Your task to perform on an android device: Open CNN.com Image 0: 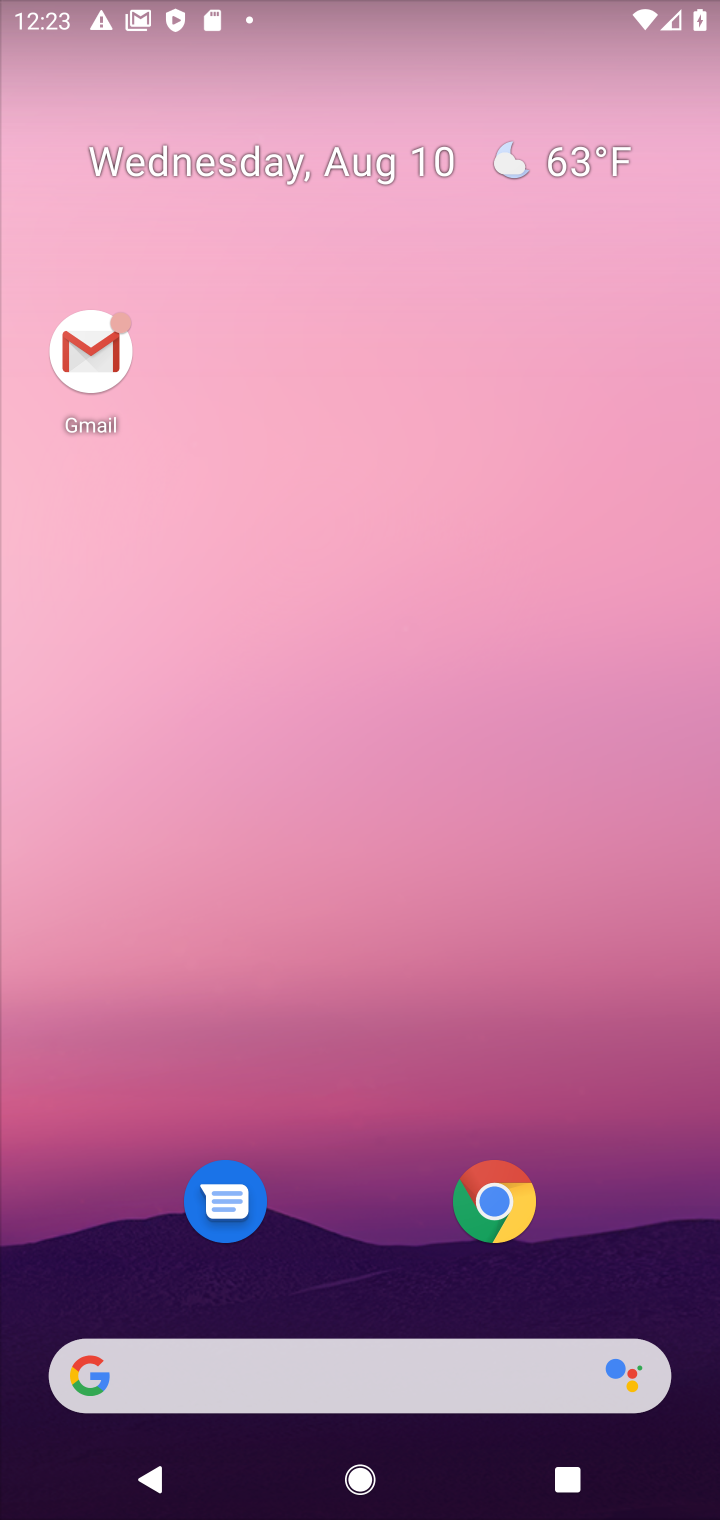
Step 0: click (505, 1202)
Your task to perform on an android device: Open CNN.com Image 1: 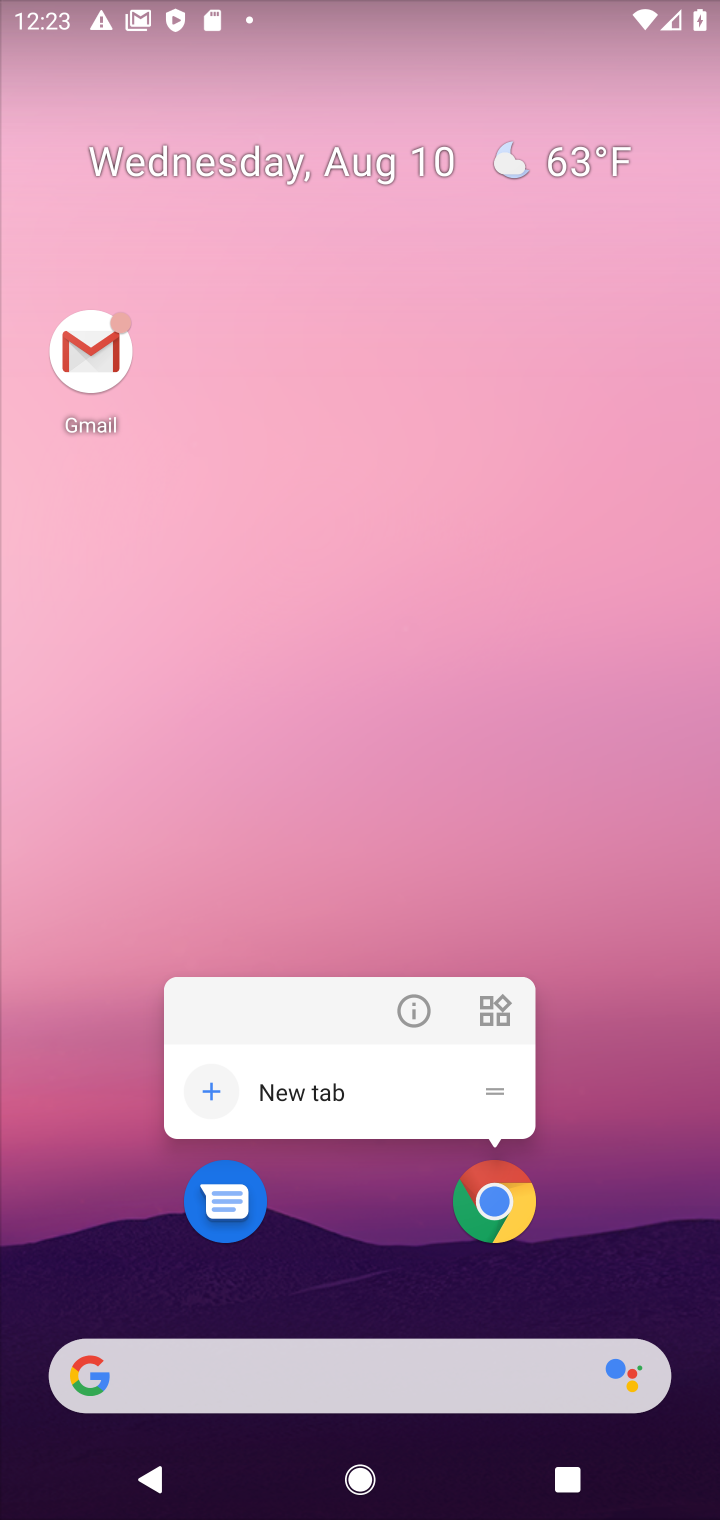
Step 1: click (507, 1202)
Your task to perform on an android device: Open CNN.com Image 2: 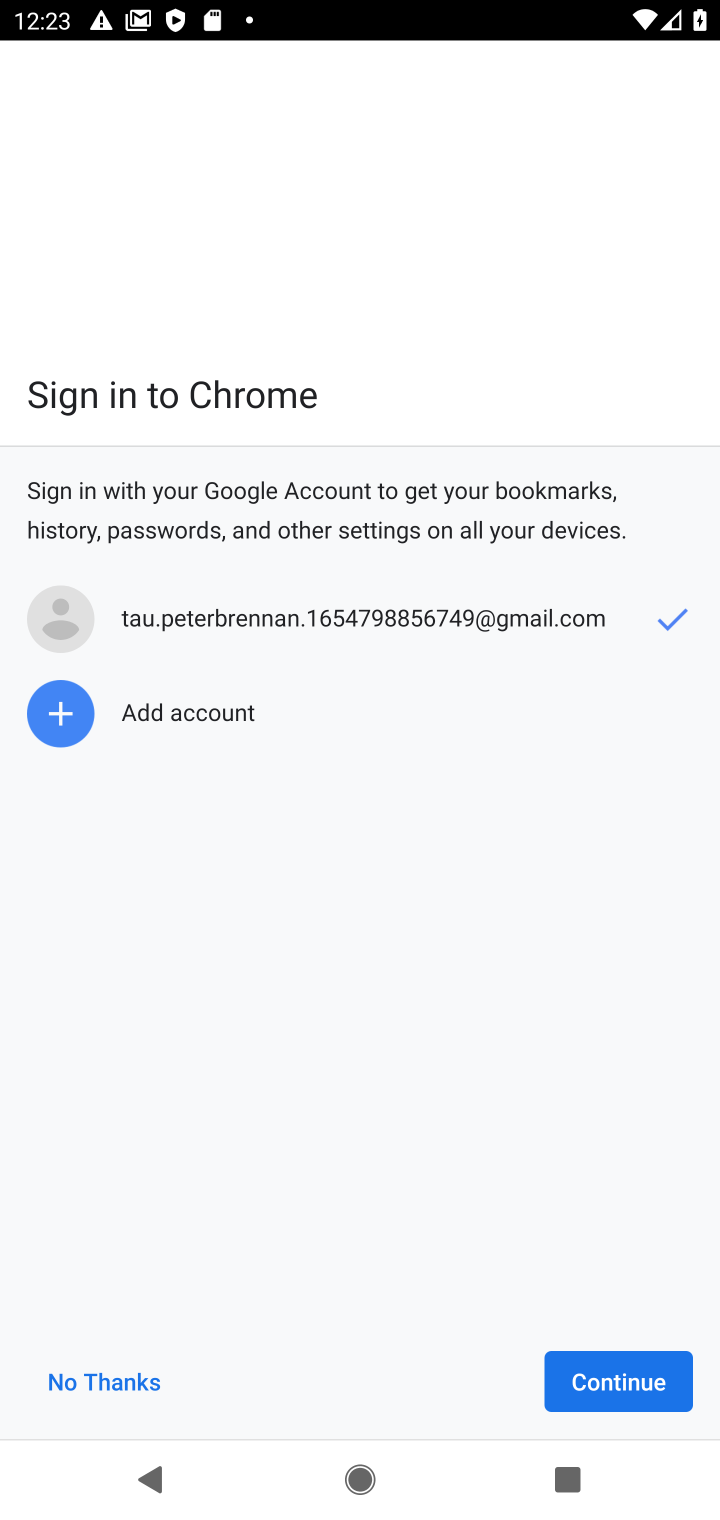
Step 2: click (583, 1360)
Your task to perform on an android device: Open CNN.com Image 3: 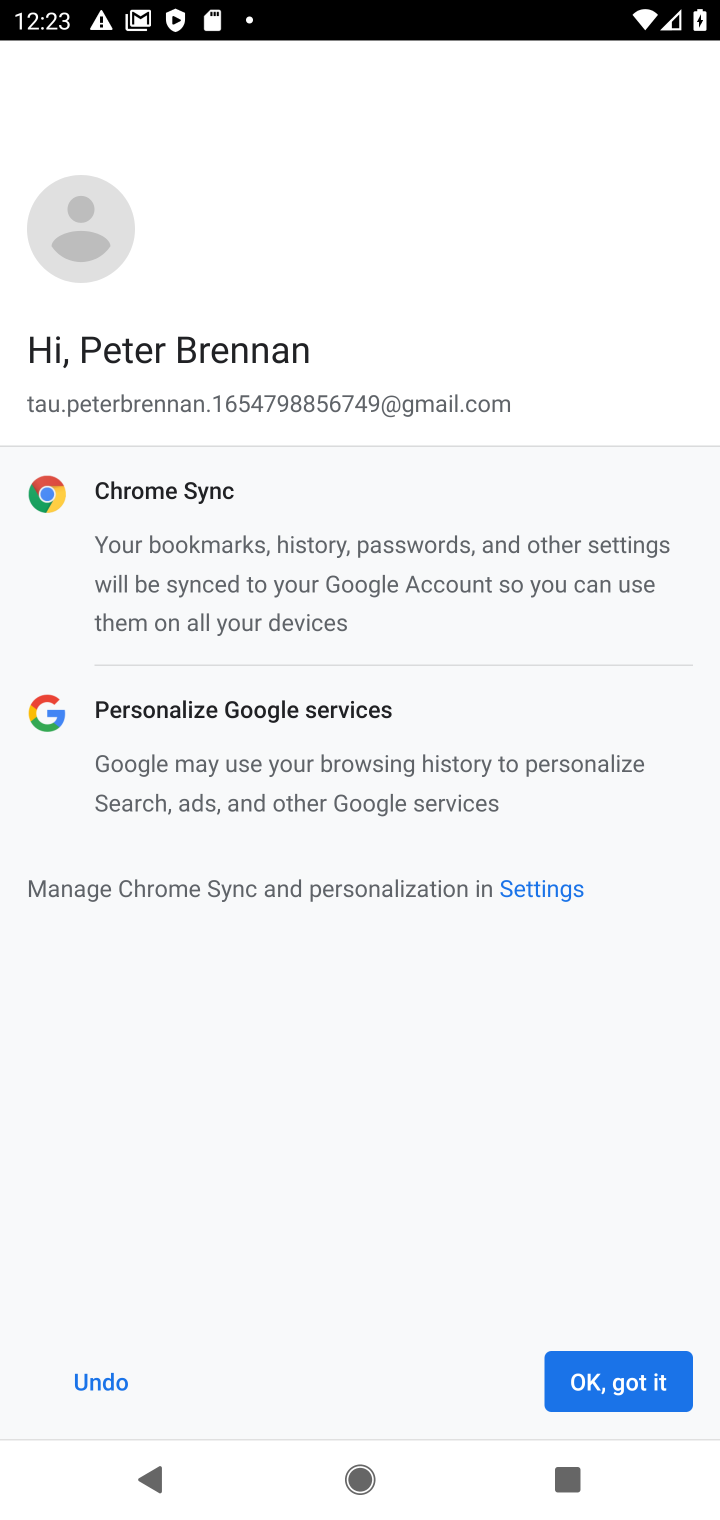
Step 3: click (659, 1402)
Your task to perform on an android device: Open CNN.com Image 4: 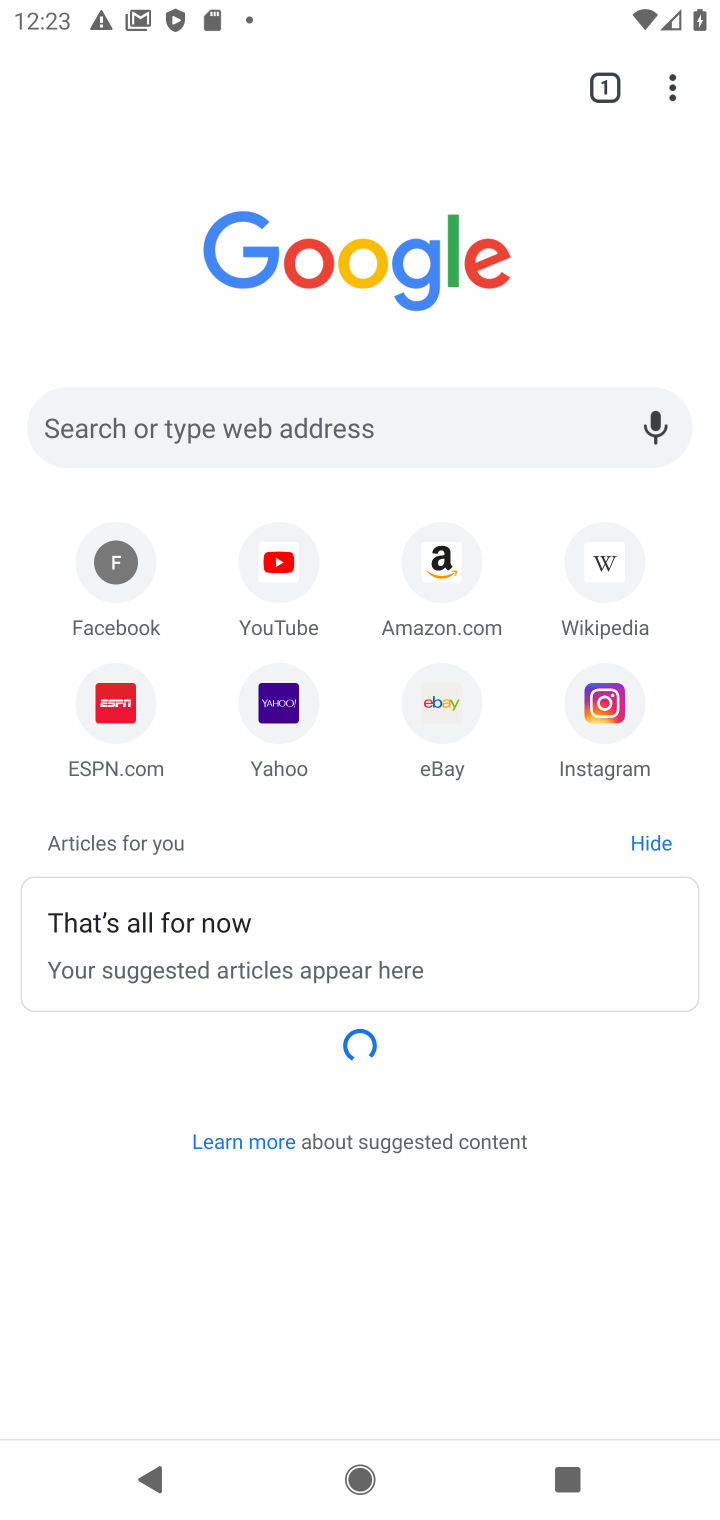
Step 4: click (351, 428)
Your task to perform on an android device: Open CNN.com Image 5: 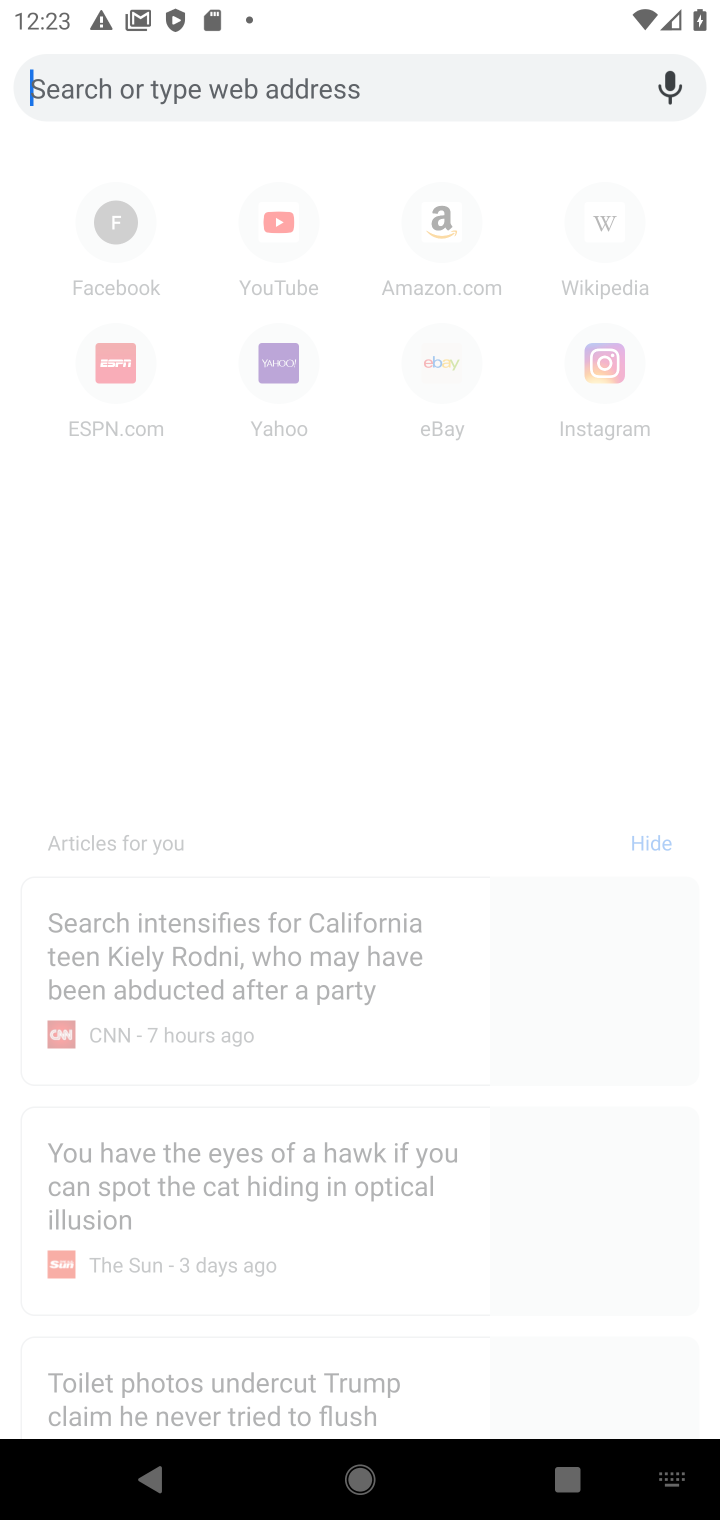
Step 5: type "cnn"
Your task to perform on an android device: Open CNN.com Image 6: 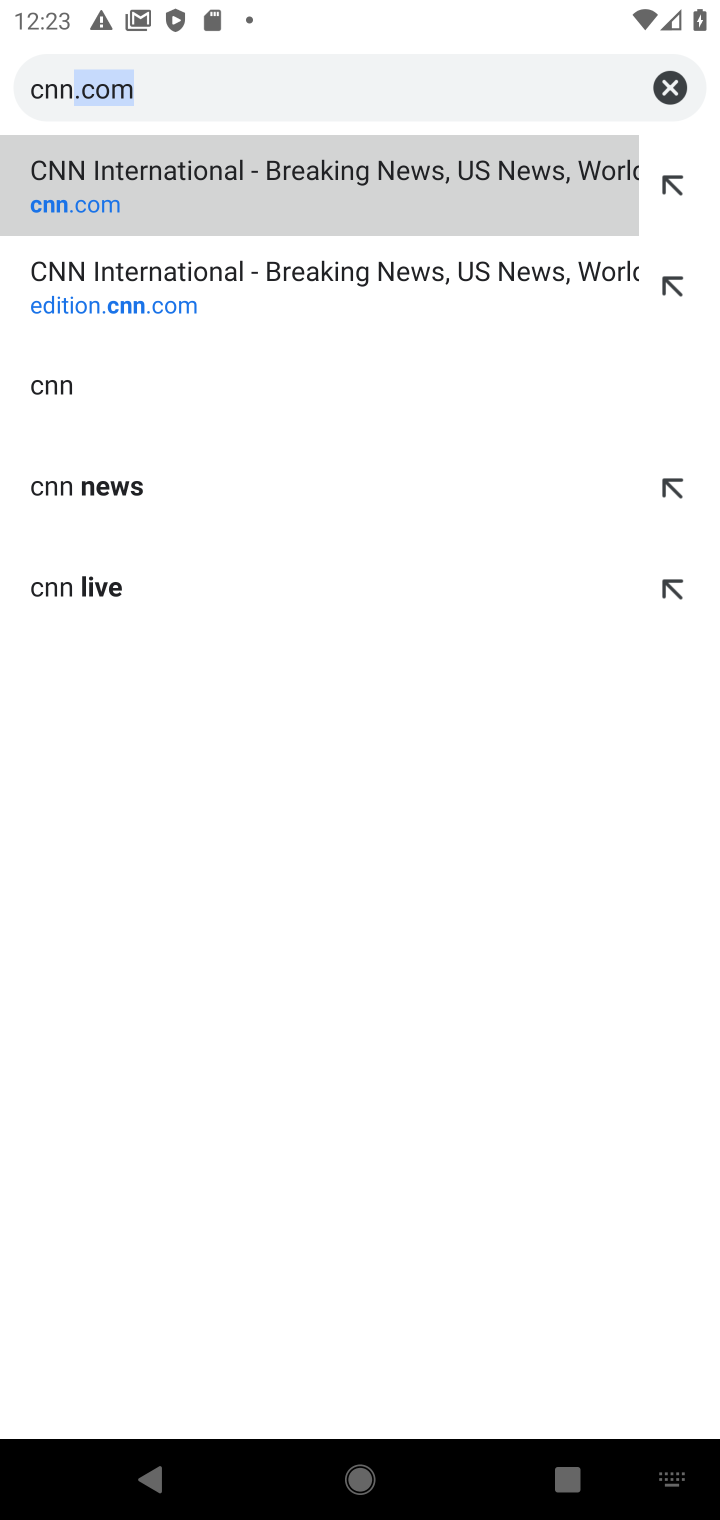
Step 6: click (343, 178)
Your task to perform on an android device: Open CNN.com Image 7: 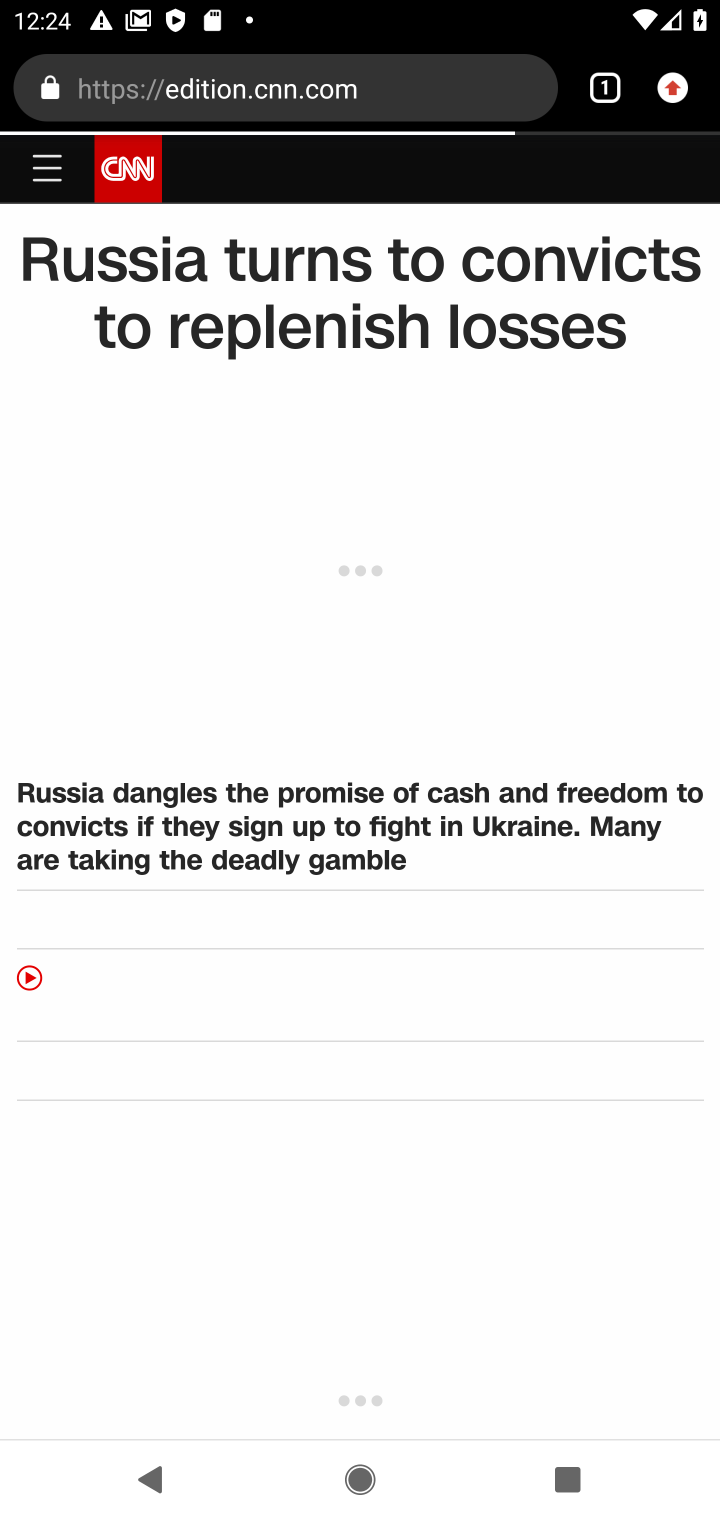
Step 7: task complete